Your task to perform on an android device: open wifi settings Image 0: 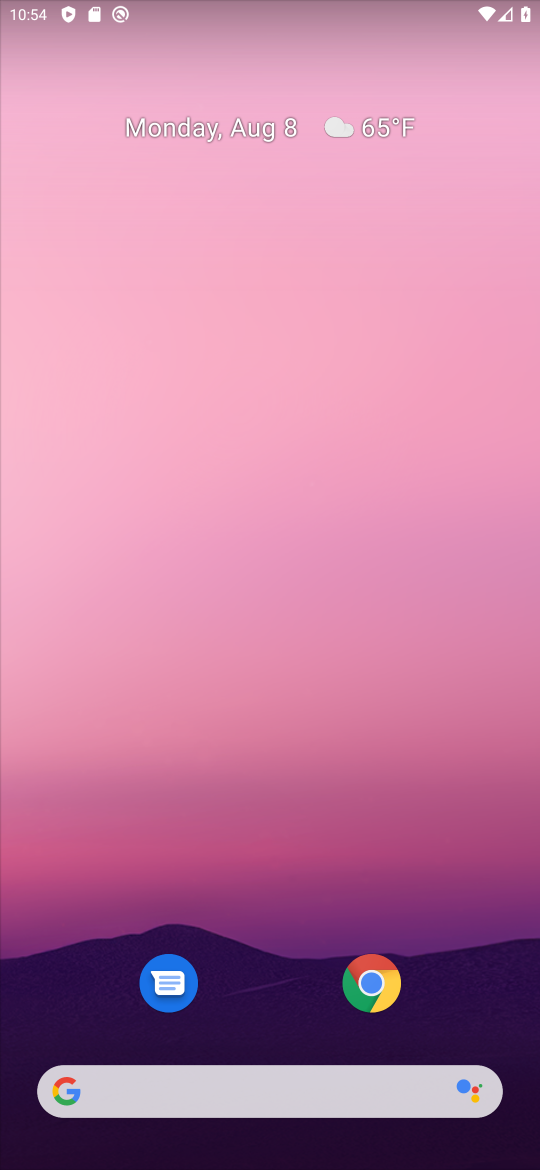
Step 0: drag from (239, 1063) to (324, 72)
Your task to perform on an android device: open wifi settings Image 1: 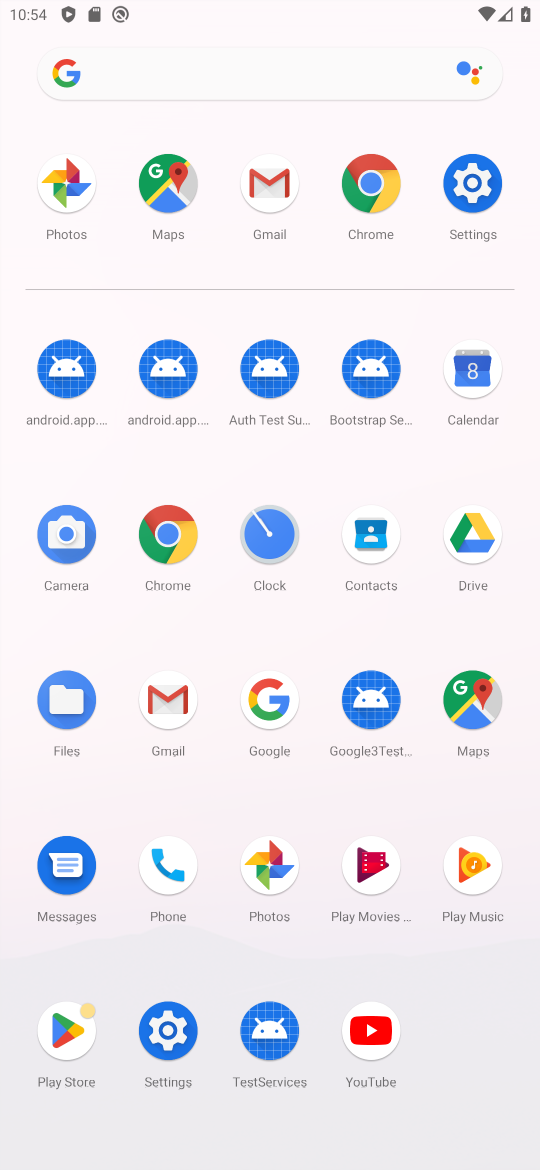
Step 1: click (457, 173)
Your task to perform on an android device: open wifi settings Image 2: 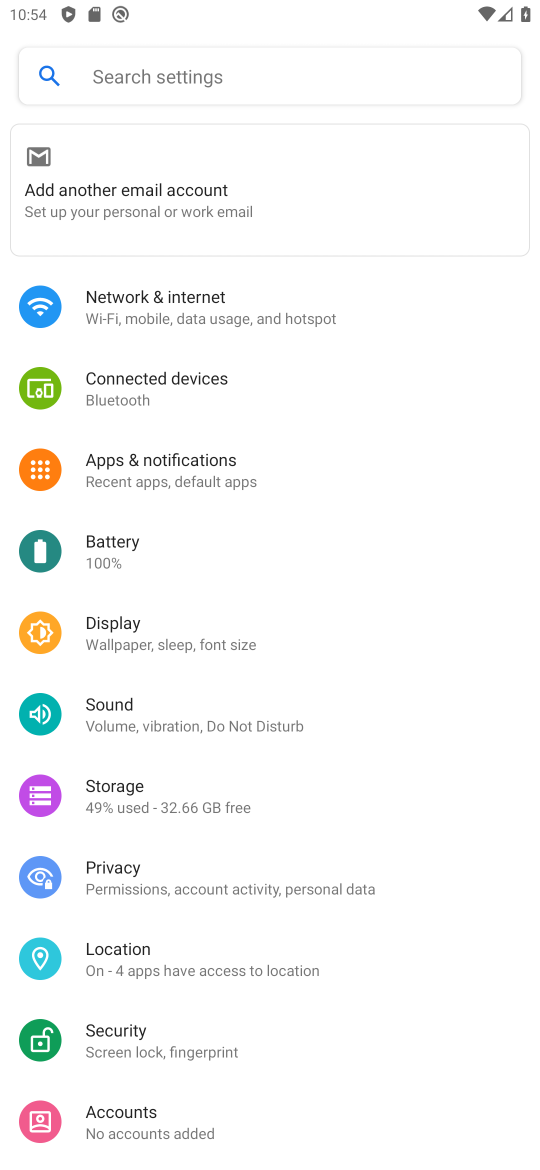
Step 2: click (335, 293)
Your task to perform on an android device: open wifi settings Image 3: 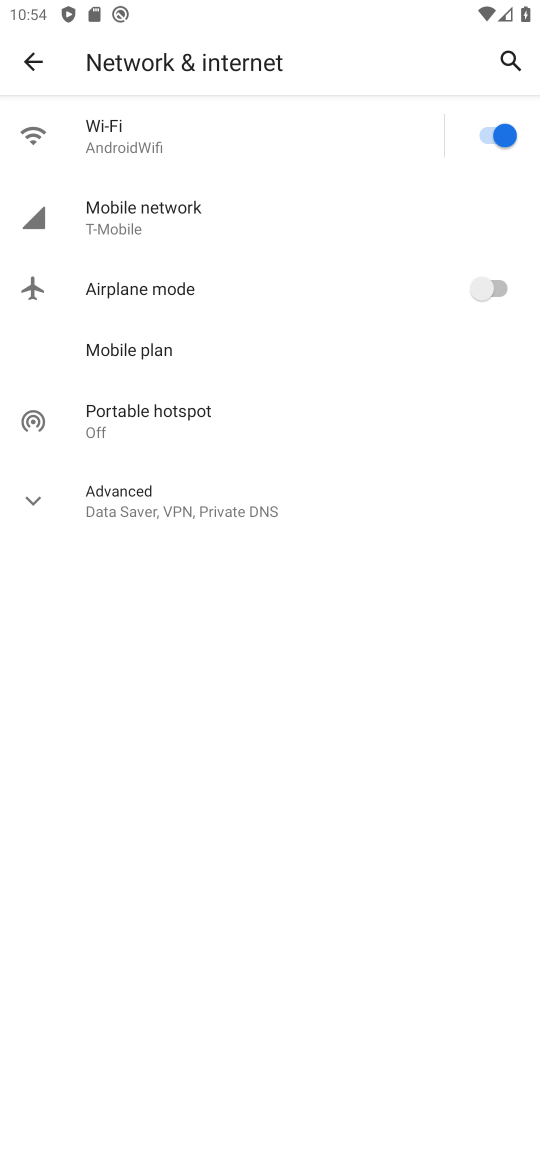
Step 3: task complete